Your task to perform on an android device: What's on my calendar tomorrow? Image 0: 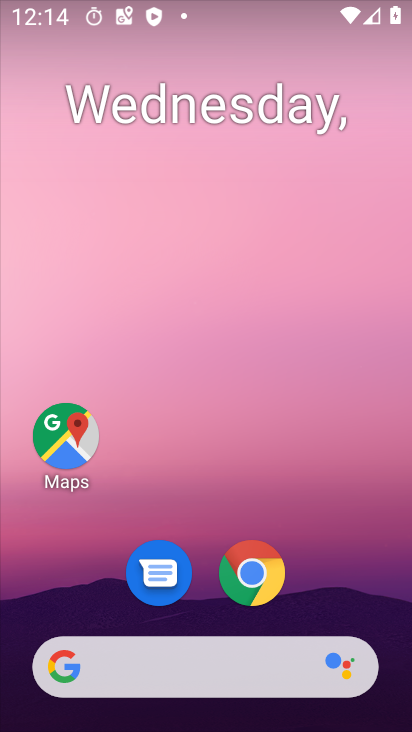
Step 0: drag from (351, 630) to (247, 166)
Your task to perform on an android device: What's on my calendar tomorrow? Image 1: 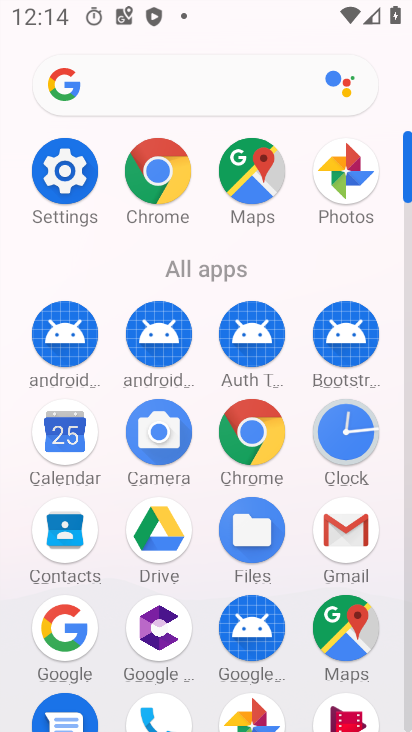
Step 1: drag from (340, 671) to (276, 215)
Your task to perform on an android device: What's on my calendar tomorrow? Image 2: 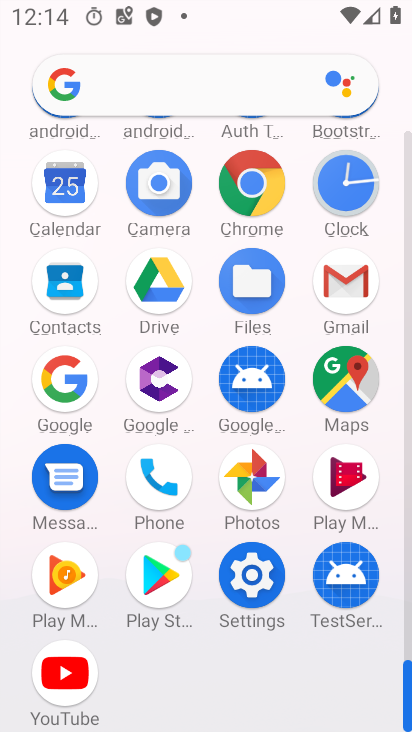
Step 2: click (59, 179)
Your task to perform on an android device: What's on my calendar tomorrow? Image 3: 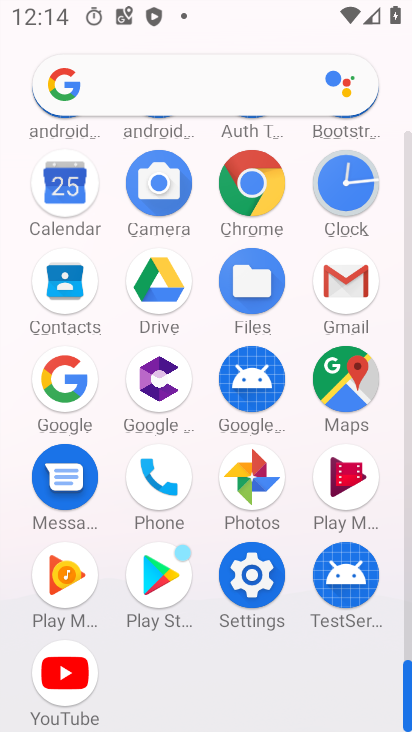
Step 3: click (63, 177)
Your task to perform on an android device: What's on my calendar tomorrow? Image 4: 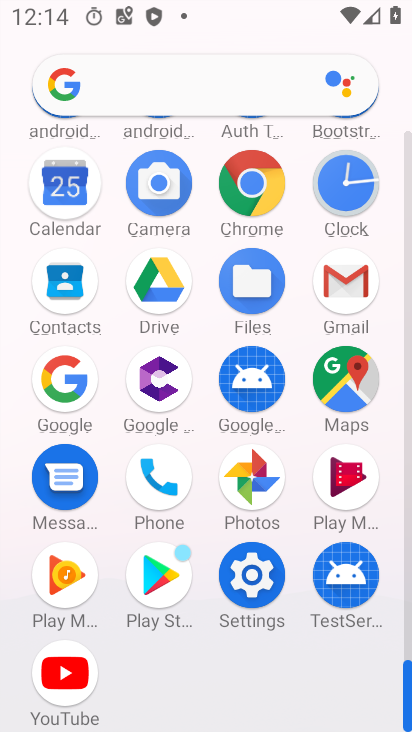
Step 4: click (64, 176)
Your task to perform on an android device: What's on my calendar tomorrow? Image 5: 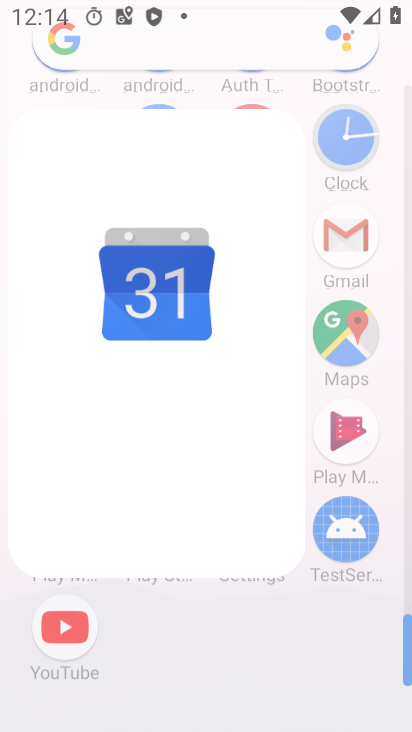
Step 5: click (66, 174)
Your task to perform on an android device: What's on my calendar tomorrow? Image 6: 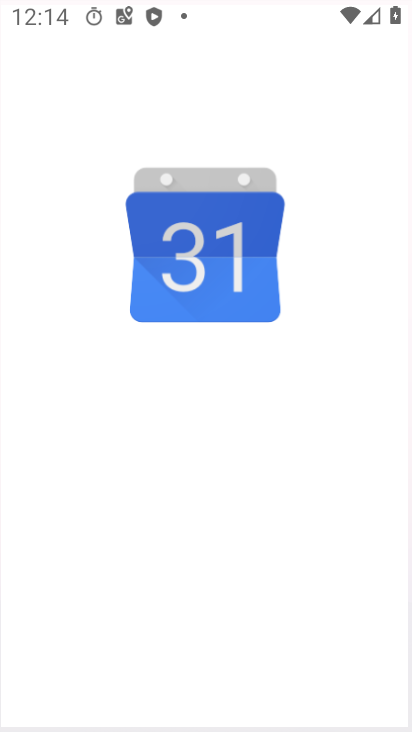
Step 6: click (67, 173)
Your task to perform on an android device: What's on my calendar tomorrow? Image 7: 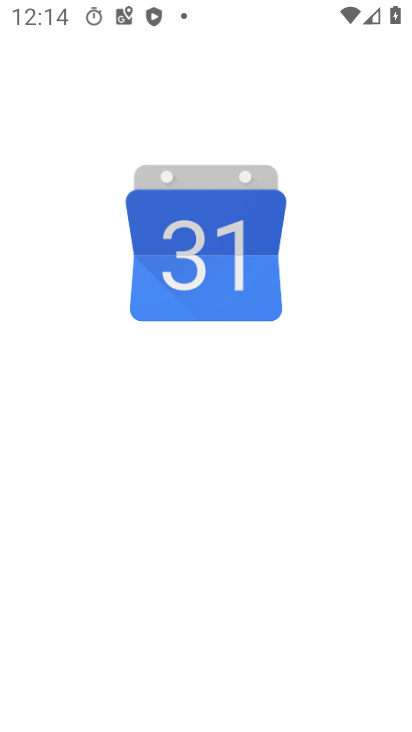
Step 7: click (67, 173)
Your task to perform on an android device: What's on my calendar tomorrow? Image 8: 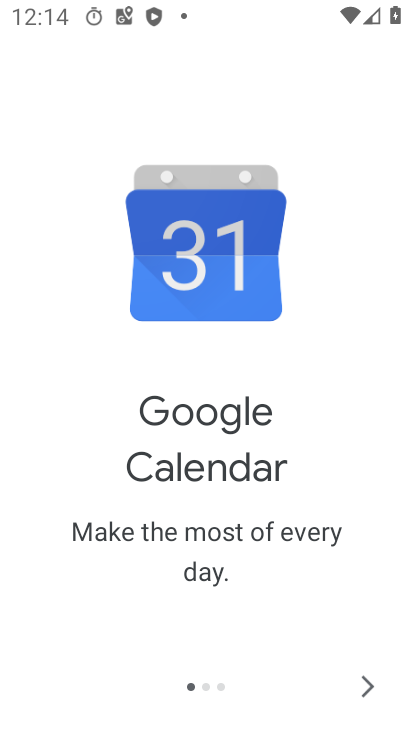
Step 8: click (357, 691)
Your task to perform on an android device: What's on my calendar tomorrow? Image 9: 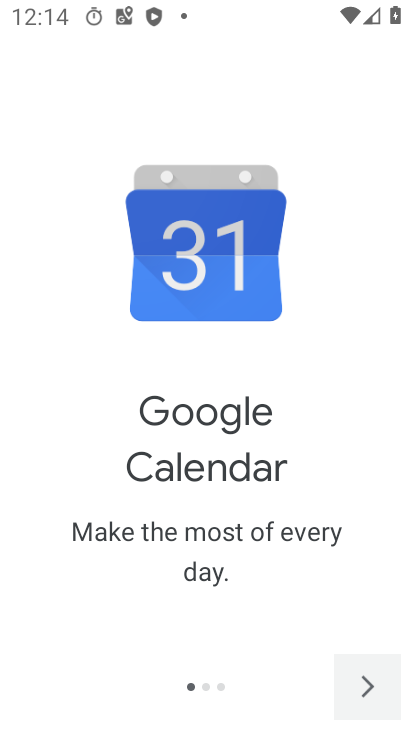
Step 9: click (357, 690)
Your task to perform on an android device: What's on my calendar tomorrow? Image 10: 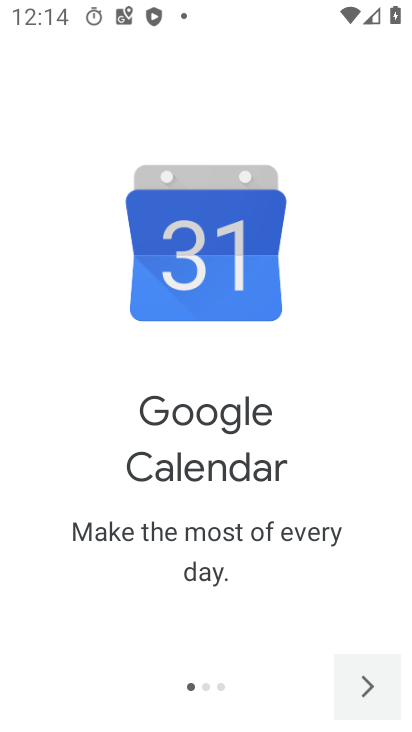
Step 10: click (360, 690)
Your task to perform on an android device: What's on my calendar tomorrow? Image 11: 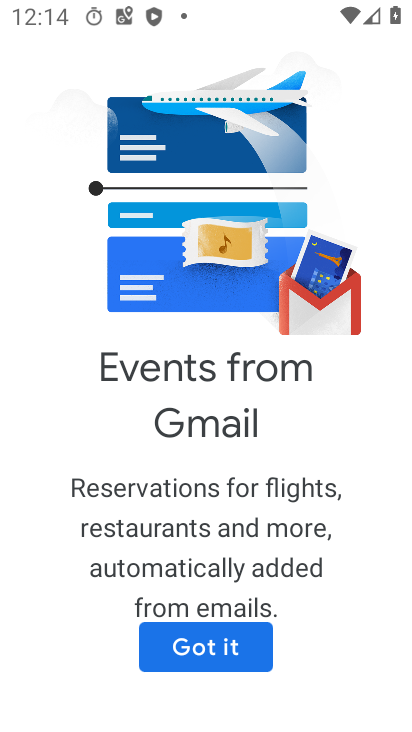
Step 11: click (207, 656)
Your task to perform on an android device: What's on my calendar tomorrow? Image 12: 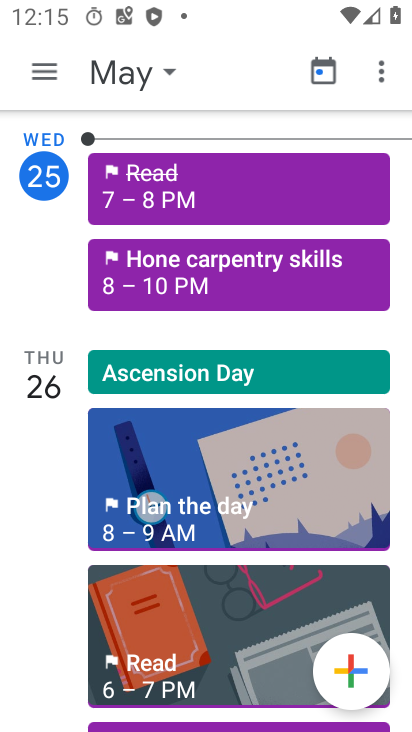
Step 12: task complete